Your task to perform on an android device: Clear the cart on amazon.com. Search for "razer huntsman" on amazon.com, select the first entry, add it to the cart, then select checkout. Image 0: 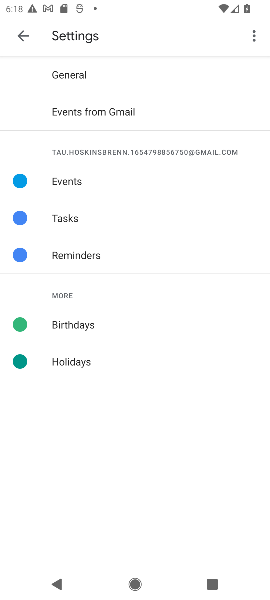
Step 0: press home button
Your task to perform on an android device: Clear the cart on amazon.com. Search for "razer huntsman" on amazon.com, select the first entry, add it to the cart, then select checkout. Image 1: 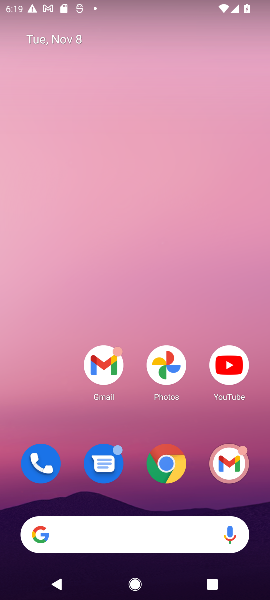
Step 1: click (166, 465)
Your task to perform on an android device: Clear the cart on amazon.com. Search for "razer huntsman" on amazon.com, select the first entry, add it to the cart, then select checkout. Image 2: 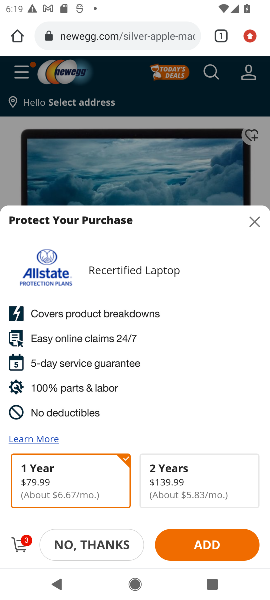
Step 2: click (134, 23)
Your task to perform on an android device: Clear the cart on amazon.com. Search for "razer huntsman" on amazon.com, select the first entry, add it to the cart, then select checkout. Image 3: 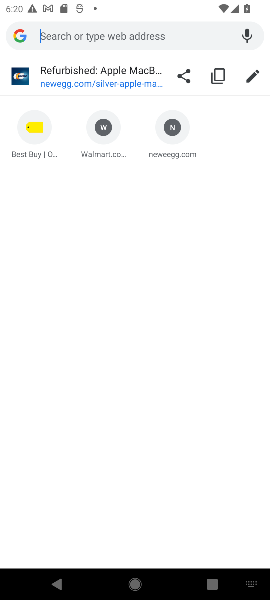
Step 3: type "amazon"
Your task to perform on an android device: Clear the cart on amazon.com. Search for "razer huntsman" on amazon.com, select the first entry, add it to the cart, then select checkout. Image 4: 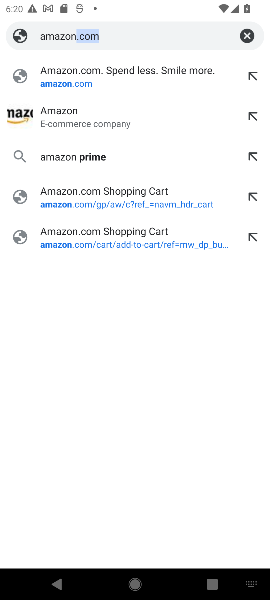
Step 4: click (34, 72)
Your task to perform on an android device: Clear the cart on amazon.com. Search for "razer huntsman" on amazon.com, select the first entry, add it to the cart, then select checkout. Image 5: 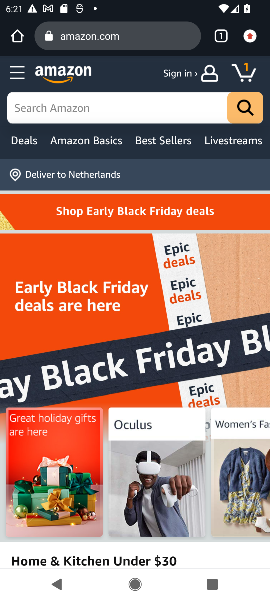
Step 5: click (244, 73)
Your task to perform on an android device: Clear the cart on amazon.com. Search for "razer huntsman" on amazon.com, select the first entry, add it to the cart, then select checkout. Image 6: 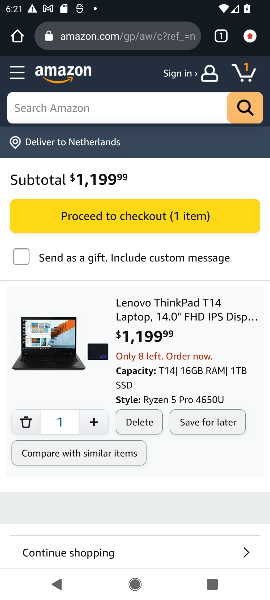
Step 6: click (24, 428)
Your task to perform on an android device: Clear the cart on amazon.com. Search for "razer huntsman" on amazon.com, select the first entry, add it to the cart, then select checkout. Image 7: 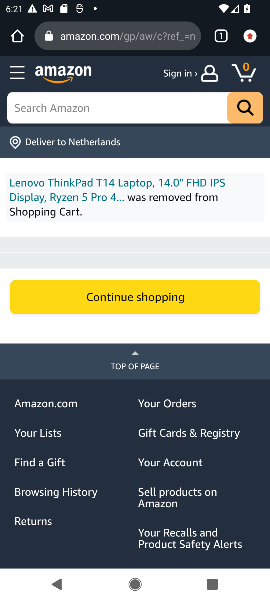
Step 7: click (75, 100)
Your task to perform on an android device: Clear the cart on amazon.com. Search for "razer huntsman" on amazon.com, select the first entry, add it to the cart, then select checkout. Image 8: 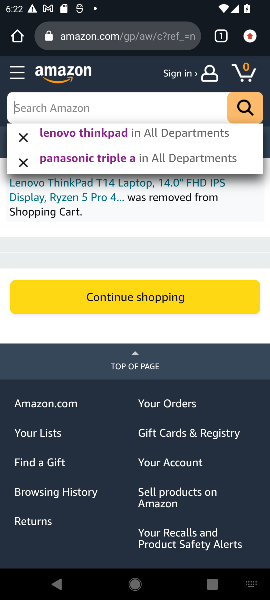
Step 8: type "razer huntsman"
Your task to perform on an android device: Clear the cart on amazon.com. Search for "razer huntsman" on amazon.com, select the first entry, add it to the cart, then select checkout. Image 9: 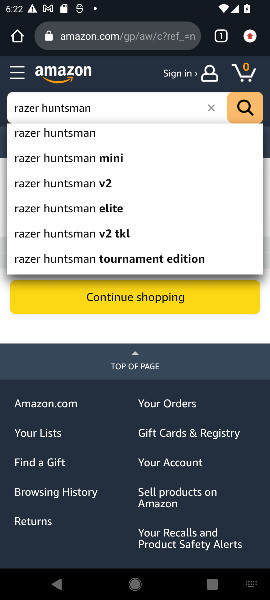
Step 9: click (241, 114)
Your task to perform on an android device: Clear the cart on amazon.com. Search for "razer huntsman" on amazon.com, select the first entry, add it to the cart, then select checkout. Image 10: 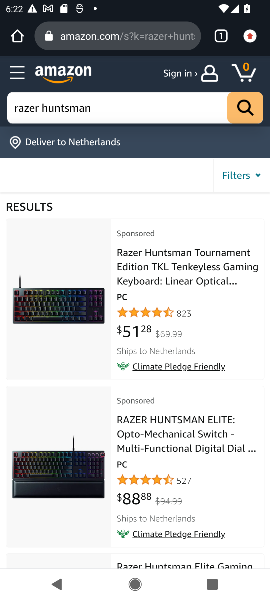
Step 10: click (155, 277)
Your task to perform on an android device: Clear the cart on amazon.com. Search for "razer huntsman" on amazon.com, select the first entry, add it to the cart, then select checkout. Image 11: 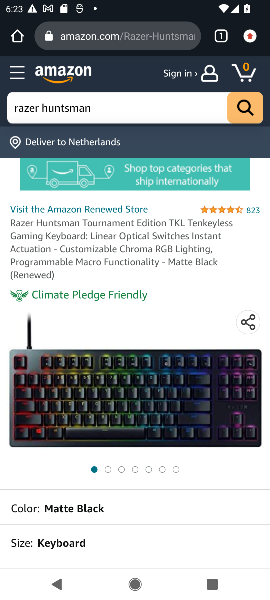
Step 11: drag from (158, 507) to (157, 259)
Your task to perform on an android device: Clear the cart on amazon.com. Search for "razer huntsman" on amazon.com, select the first entry, add it to the cart, then select checkout. Image 12: 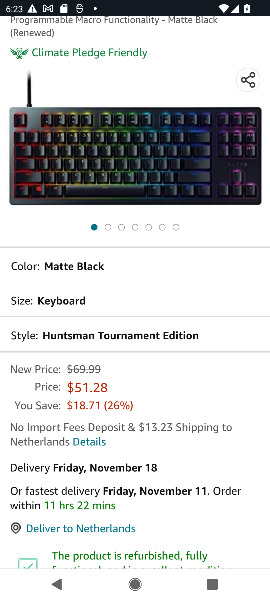
Step 12: drag from (178, 481) to (191, 100)
Your task to perform on an android device: Clear the cart on amazon.com. Search for "razer huntsman" on amazon.com, select the first entry, add it to the cart, then select checkout. Image 13: 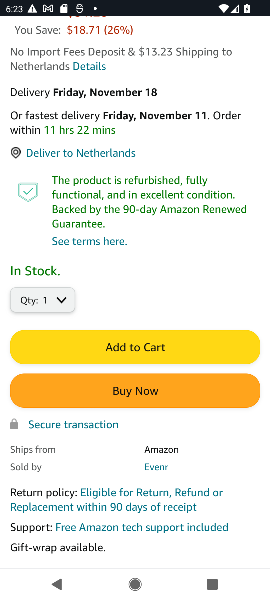
Step 13: click (114, 348)
Your task to perform on an android device: Clear the cart on amazon.com. Search for "razer huntsman" on amazon.com, select the first entry, add it to the cart, then select checkout. Image 14: 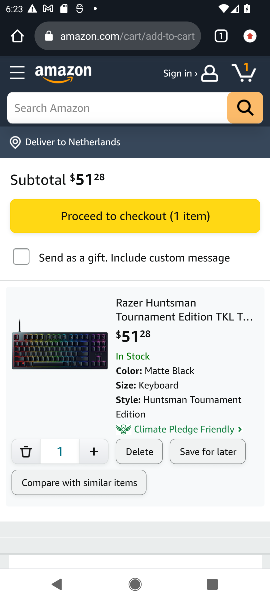
Step 14: click (130, 210)
Your task to perform on an android device: Clear the cart on amazon.com. Search for "razer huntsman" on amazon.com, select the first entry, add it to the cart, then select checkout. Image 15: 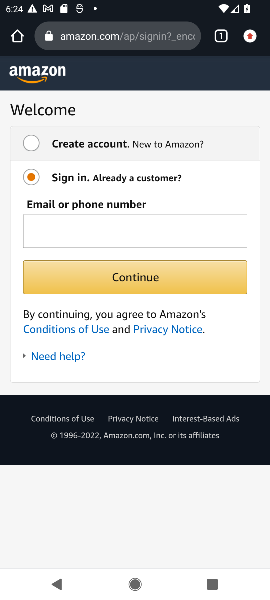
Step 15: task complete